Your task to perform on an android device: install app "Fetch Rewards" Image 0: 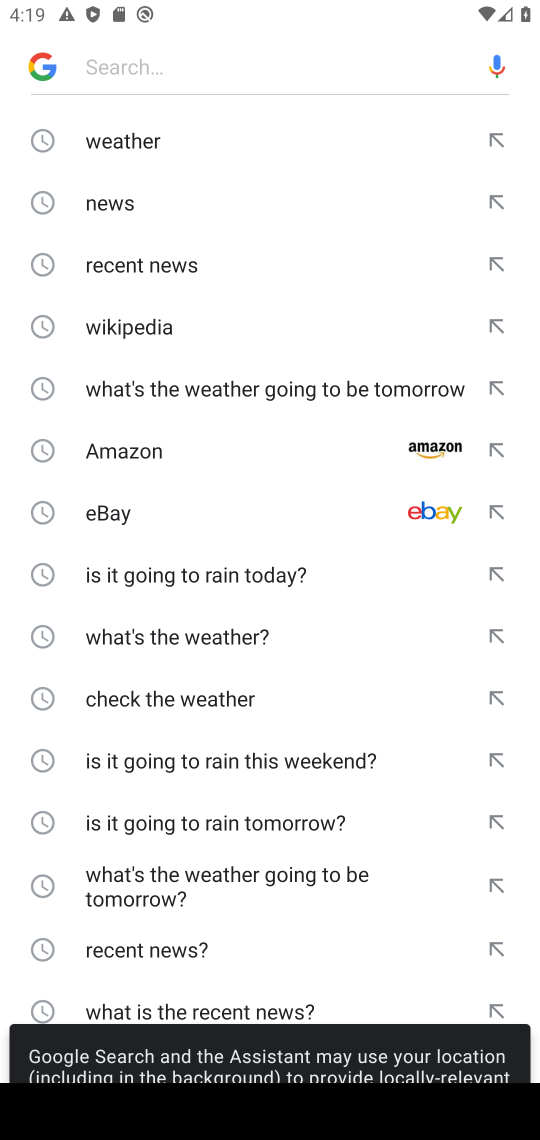
Step 0: press home button
Your task to perform on an android device: install app "Fetch Rewards" Image 1: 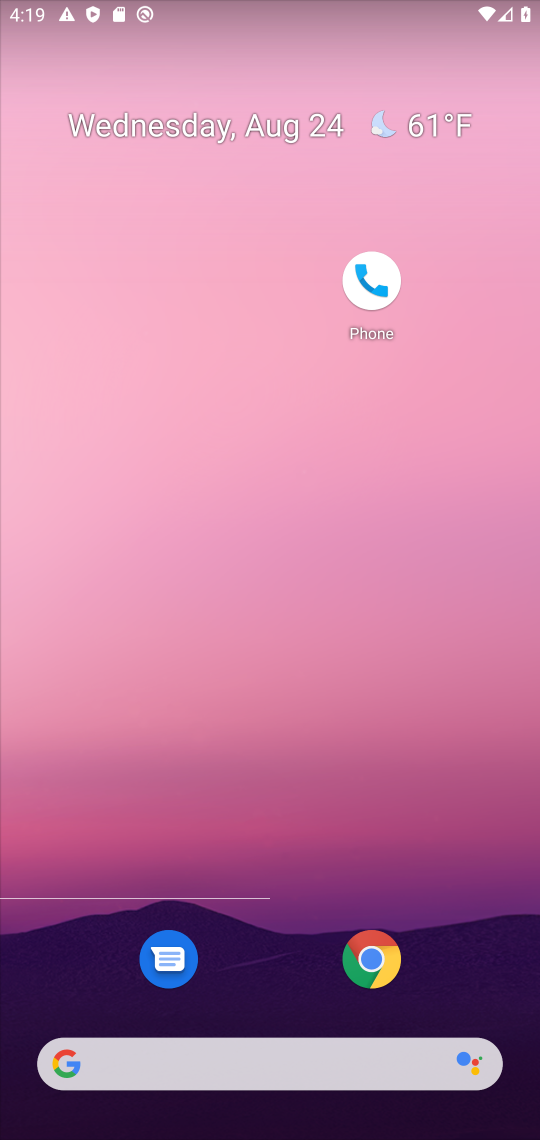
Step 1: drag from (301, 999) to (275, 31)
Your task to perform on an android device: install app "Fetch Rewards" Image 2: 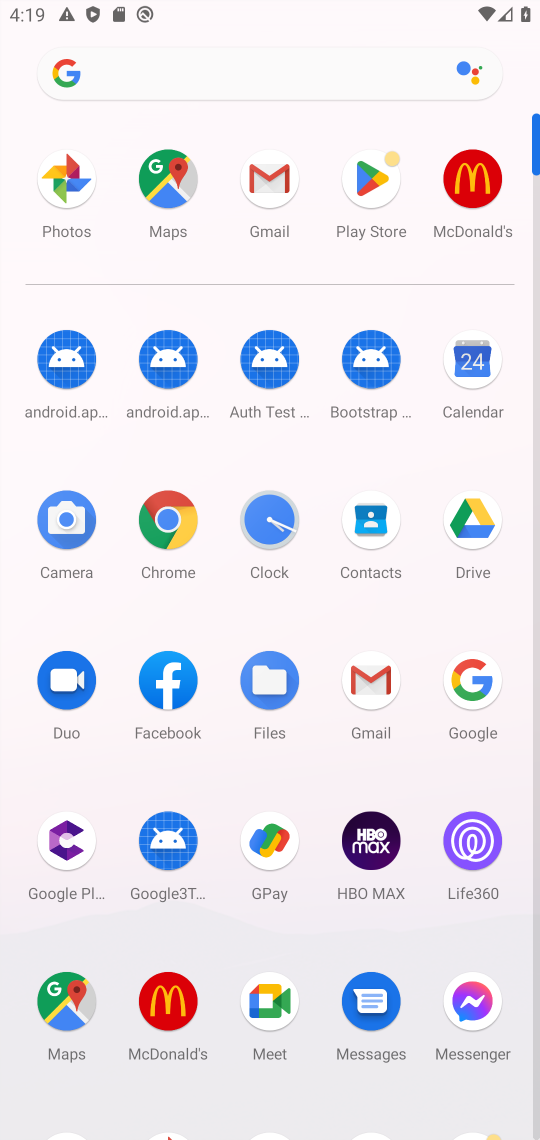
Step 2: click (397, 213)
Your task to perform on an android device: install app "Fetch Rewards" Image 3: 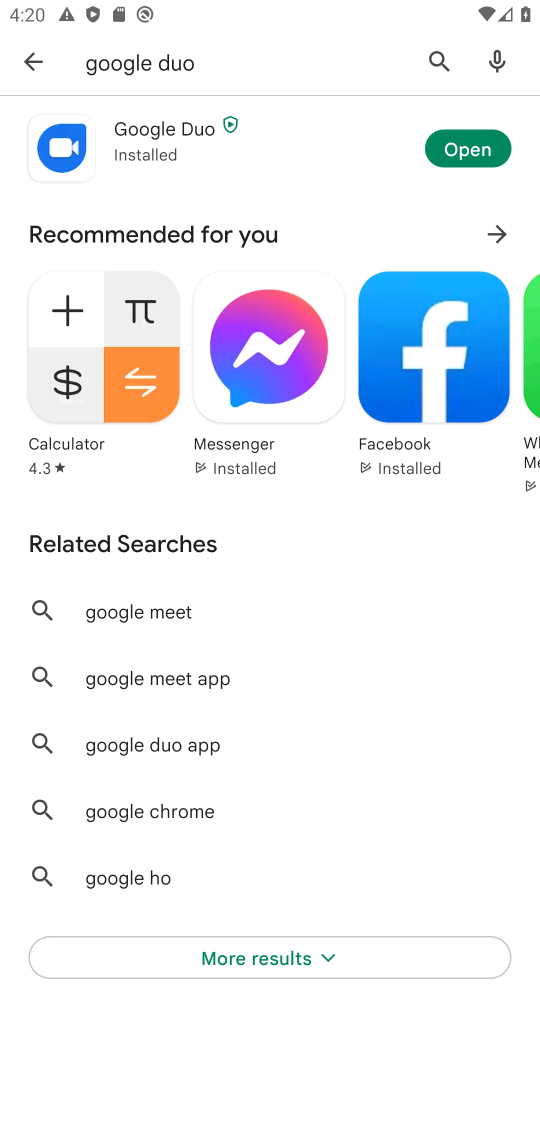
Step 3: click (418, 70)
Your task to perform on an android device: install app "Fetch Rewards" Image 4: 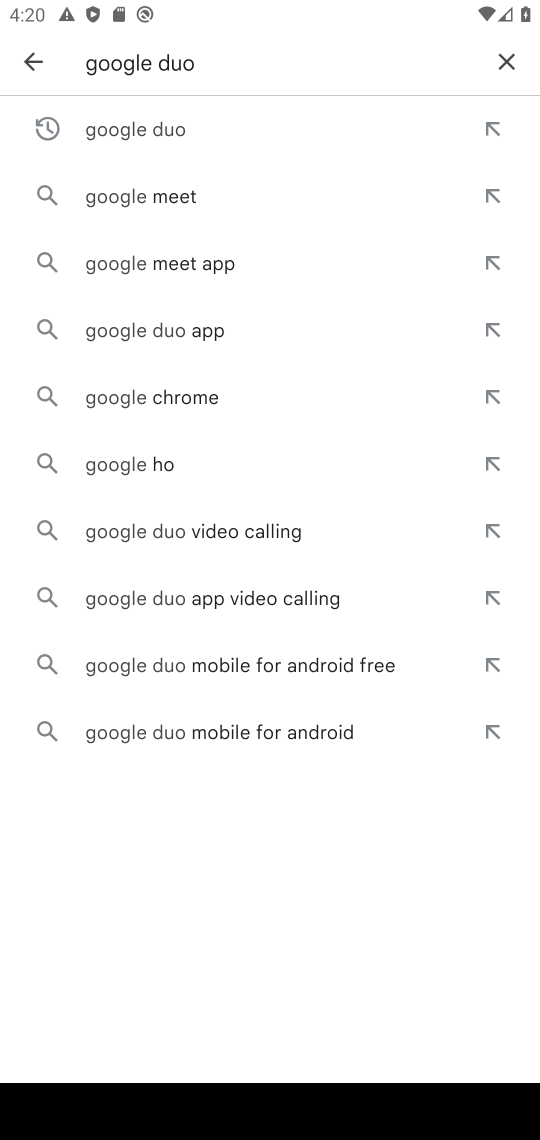
Step 4: click (507, 65)
Your task to perform on an android device: install app "Fetch Rewards" Image 5: 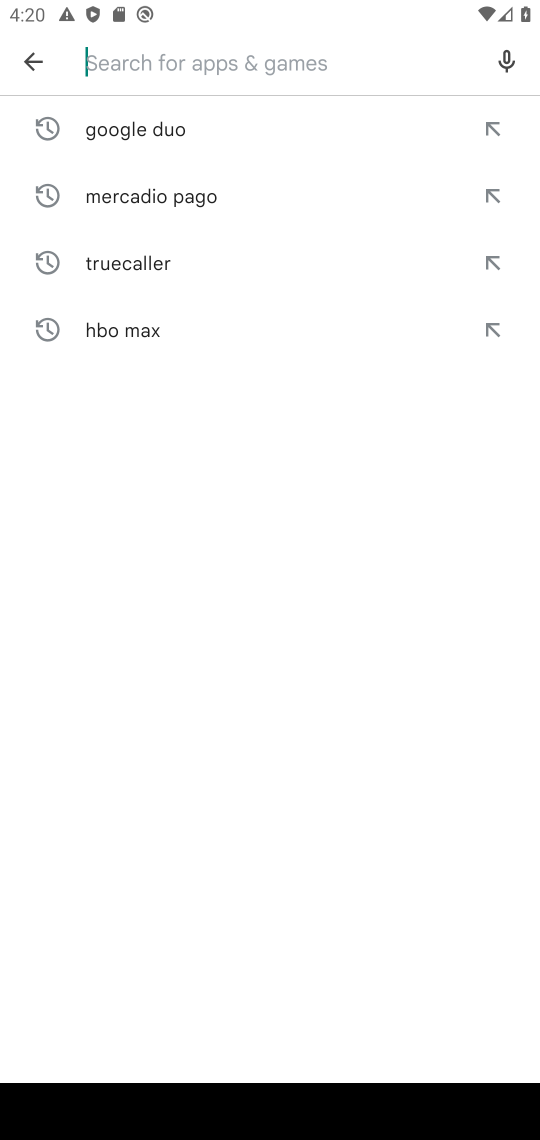
Step 5: type "tetch"
Your task to perform on an android device: install app "Fetch Rewards" Image 6: 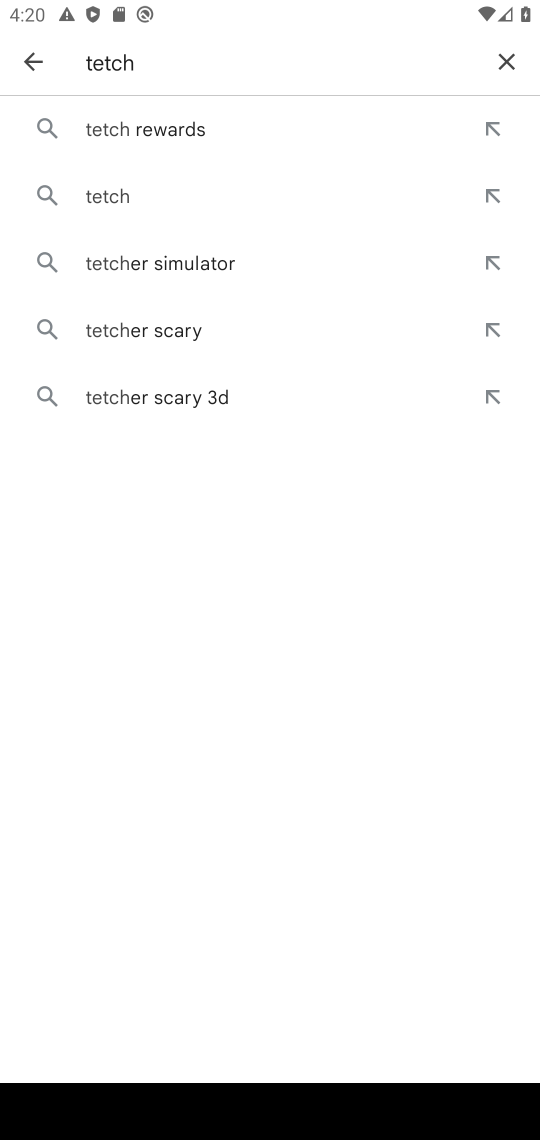
Step 6: click (183, 132)
Your task to perform on an android device: install app "Fetch Rewards" Image 7: 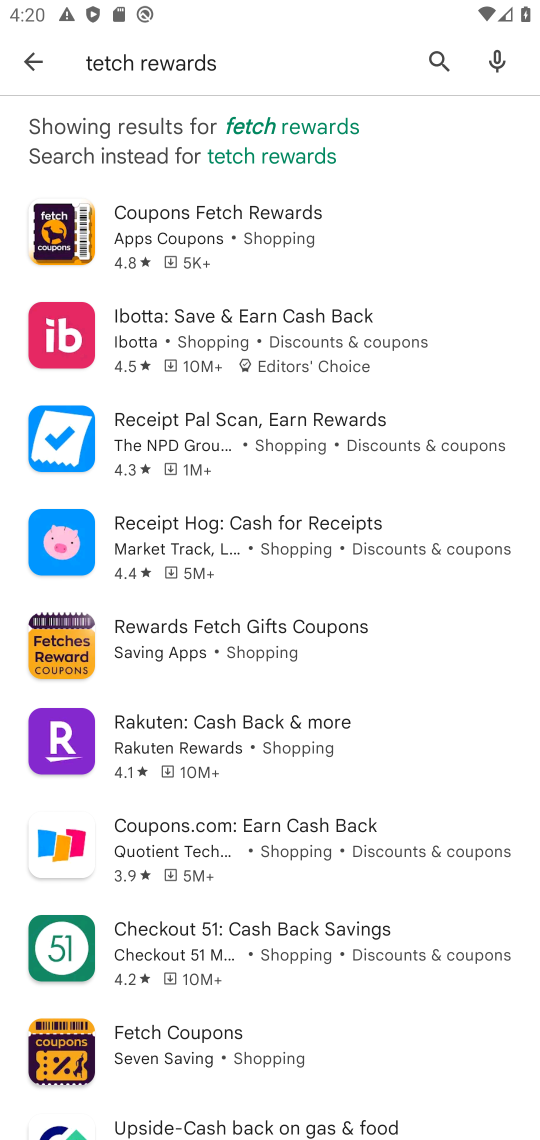
Step 7: click (278, 235)
Your task to perform on an android device: install app "Fetch Rewards" Image 8: 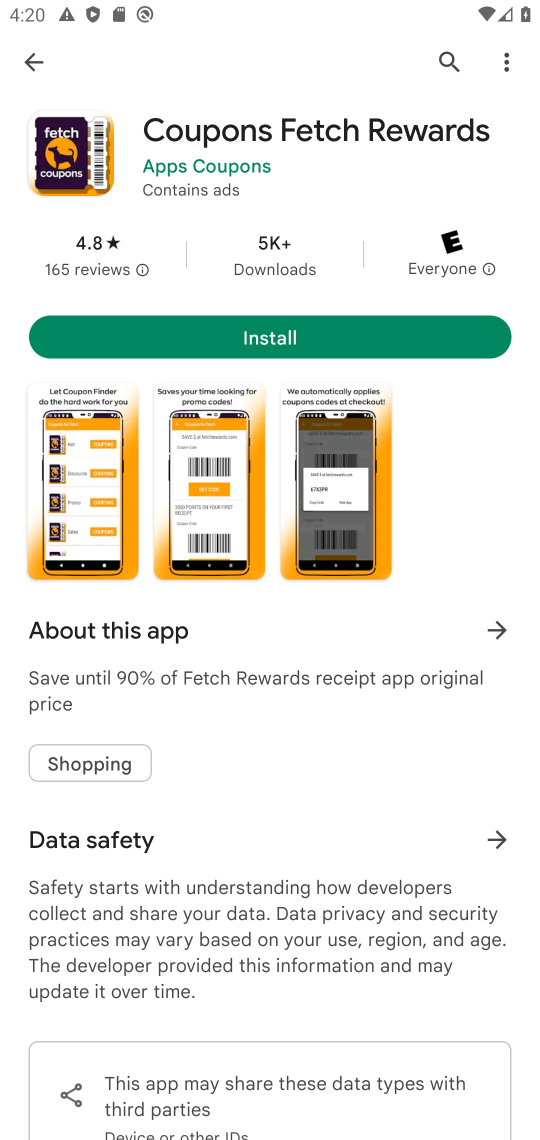
Step 8: click (378, 322)
Your task to perform on an android device: install app "Fetch Rewards" Image 9: 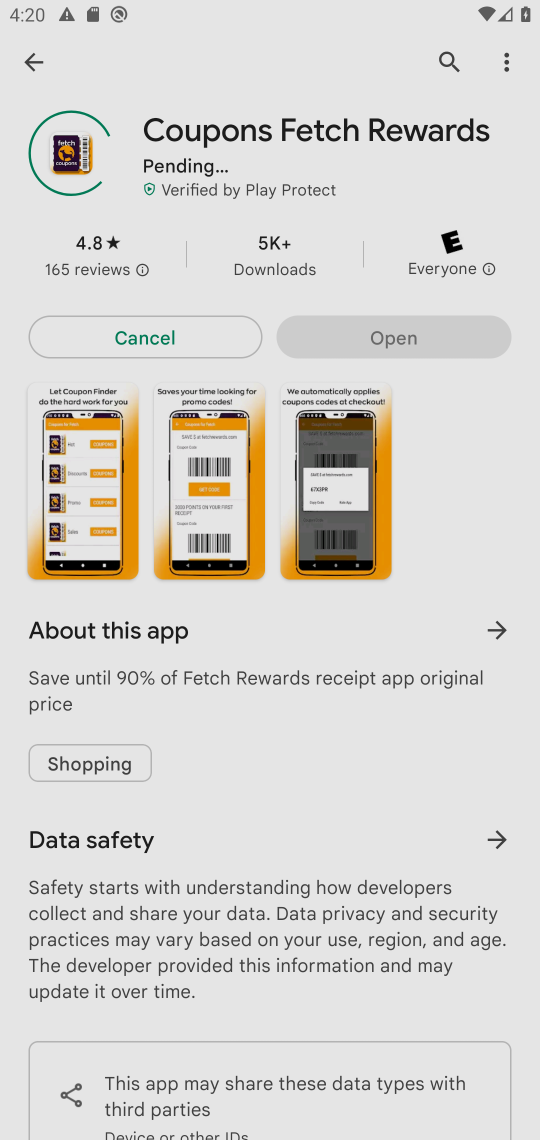
Step 9: task complete